Your task to perform on an android device: turn off airplane mode Image 0: 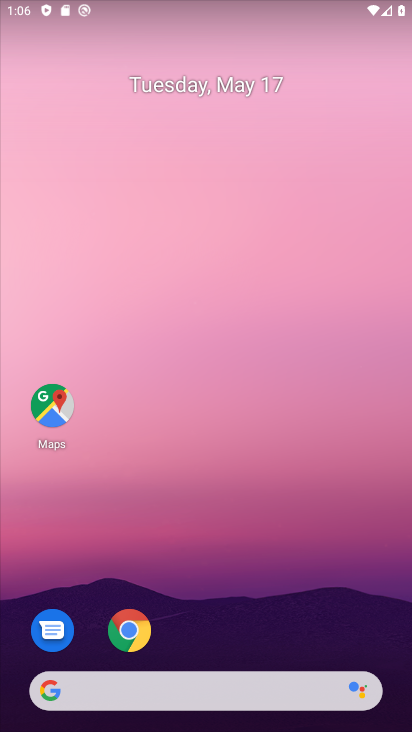
Step 0: drag from (349, 65) to (264, 656)
Your task to perform on an android device: turn off airplane mode Image 1: 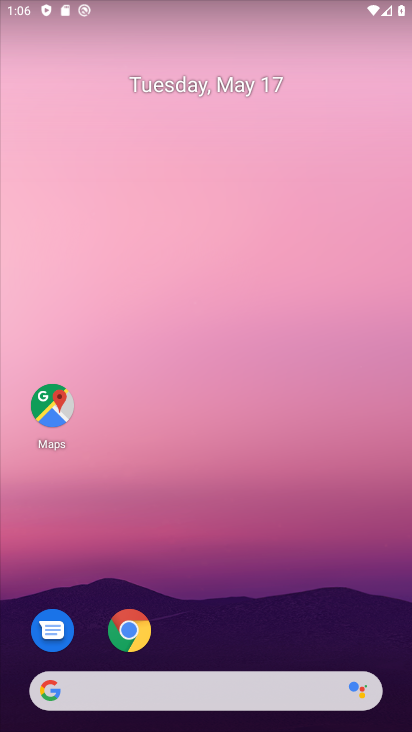
Step 1: task complete